Your task to perform on an android device: Turn on the flashlight Image 0: 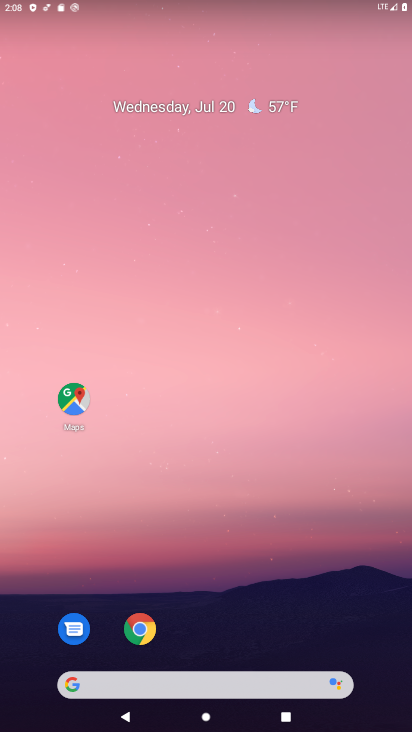
Step 0: drag from (224, 12) to (206, 515)
Your task to perform on an android device: Turn on the flashlight Image 1: 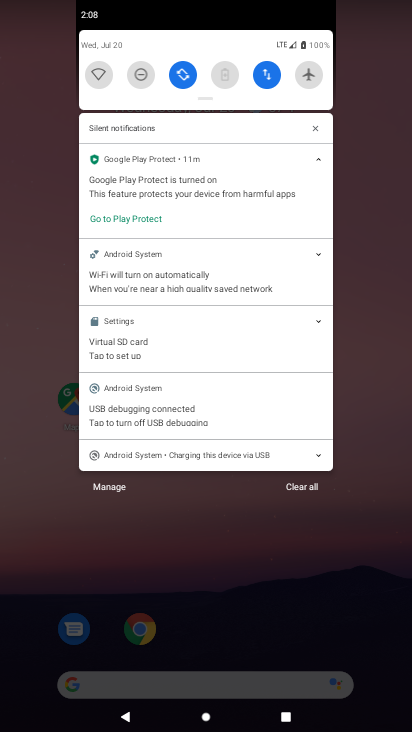
Step 1: drag from (200, 105) to (190, 440)
Your task to perform on an android device: Turn on the flashlight Image 2: 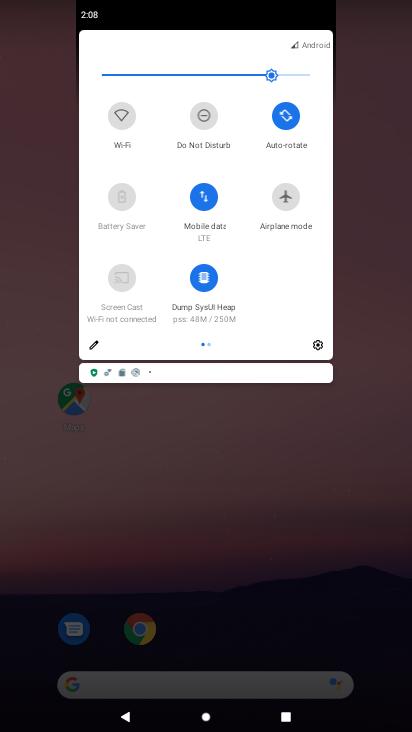
Step 2: click (94, 344)
Your task to perform on an android device: Turn on the flashlight Image 3: 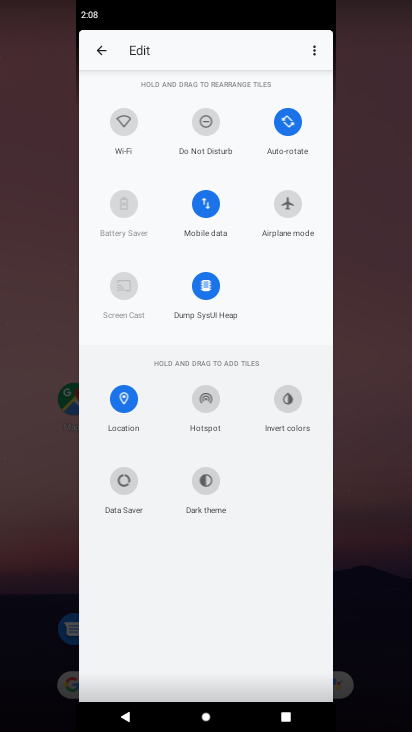
Step 3: task complete